Your task to perform on an android device: see sites visited before in the chrome app Image 0: 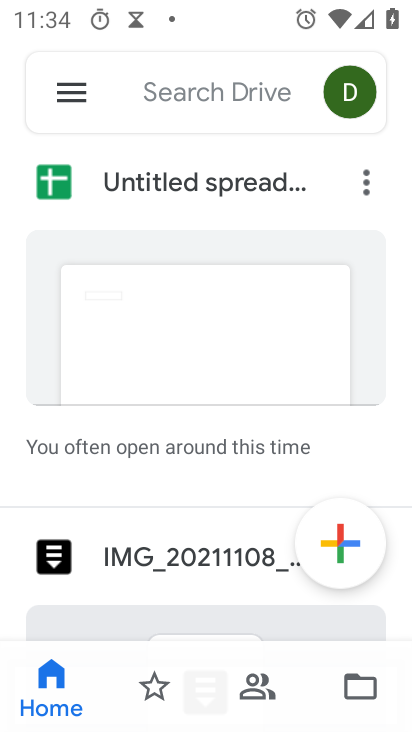
Step 0: press home button
Your task to perform on an android device: see sites visited before in the chrome app Image 1: 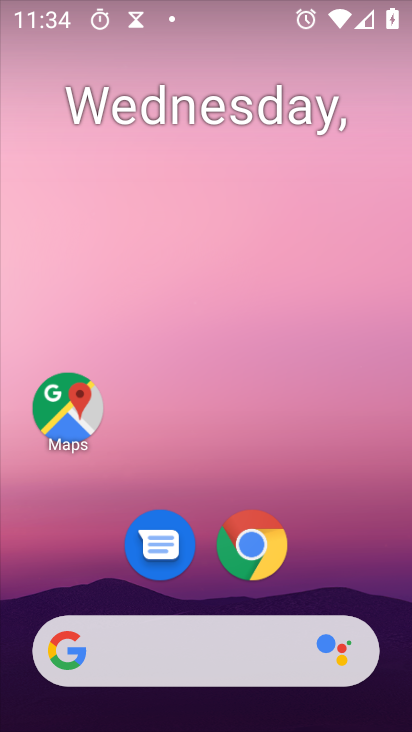
Step 1: click (238, 558)
Your task to perform on an android device: see sites visited before in the chrome app Image 2: 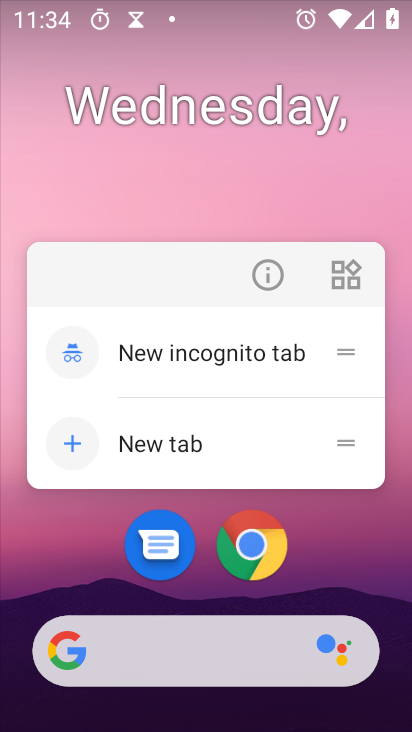
Step 2: click (278, 540)
Your task to perform on an android device: see sites visited before in the chrome app Image 3: 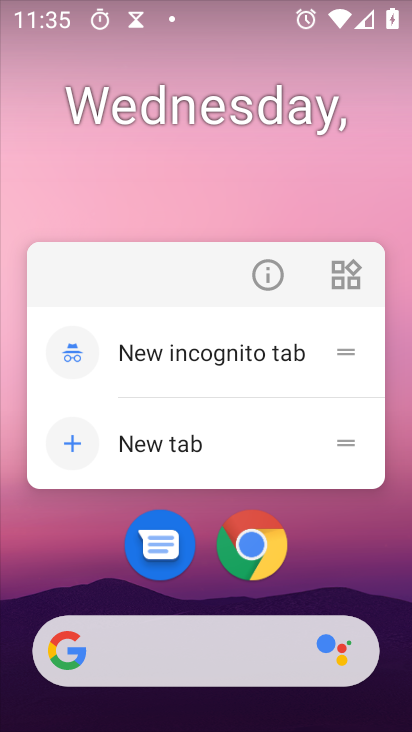
Step 3: click (269, 547)
Your task to perform on an android device: see sites visited before in the chrome app Image 4: 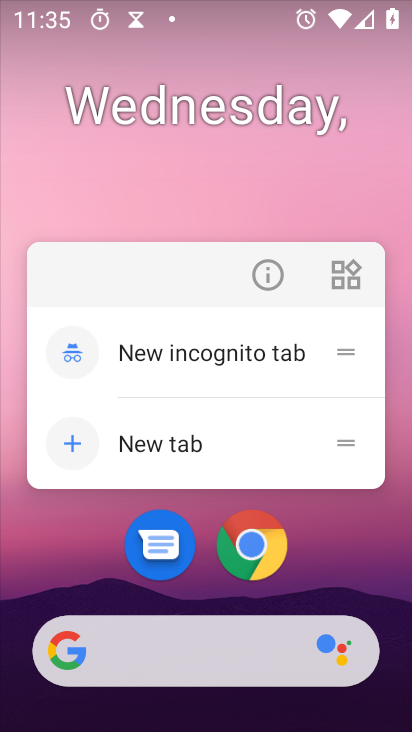
Step 4: click (259, 552)
Your task to perform on an android device: see sites visited before in the chrome app Image 5: 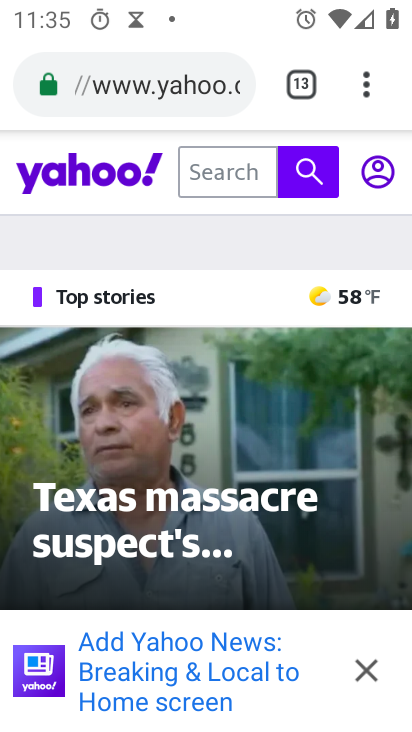
Step 5: task complete